Your task to perform on an android device: Open Google Chrome and open the bookmarks view Image 0: 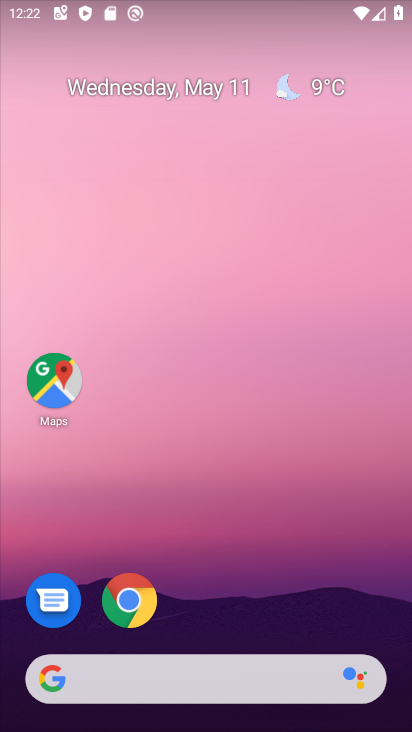
Step 0: click (136, 602)
Your task to perform on an android device: Open Google Chrome and open the bookmarks view Image 1: 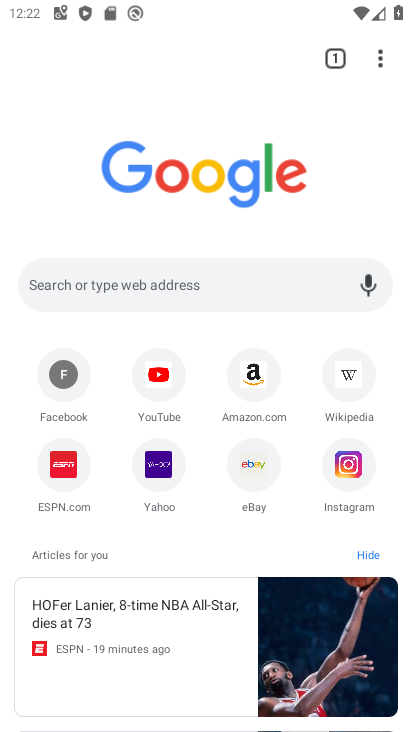
Step 1: click (380, 52)
Your task to perform on an android device: Open Google Chrome and open the bookmarks view Image 2: 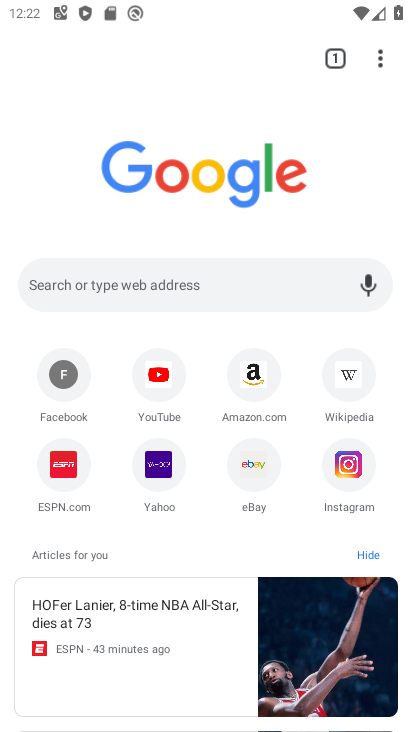
Step 2: click (373, 58)
Your task to perform on an android device: Open Google Chrome and open the bookmarks view Image 3: 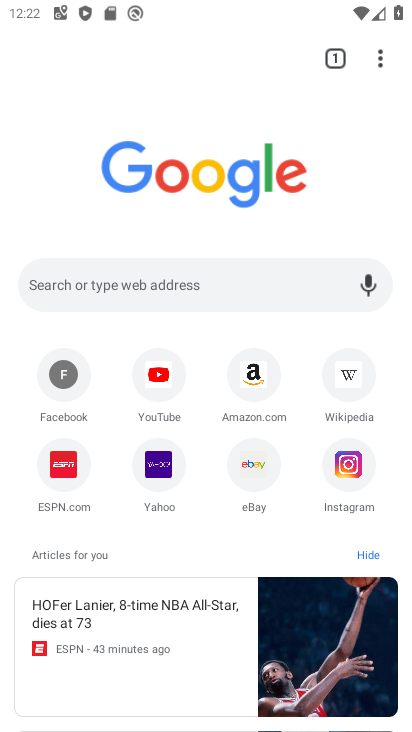
Step 3: click (378, 52)
Your task to perform on an android device: Open Google Chrome and open the bookmarks view Image 4: 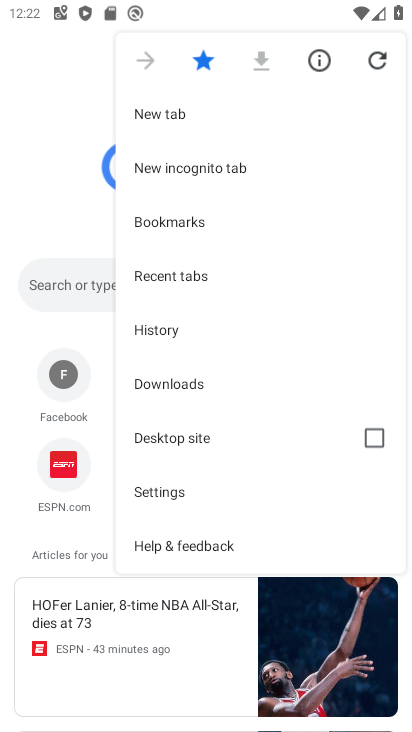
Step 4: click (198, 222)
Your task to perform on an android device: Open Google Chrome and open the bookmarks view Image 5: 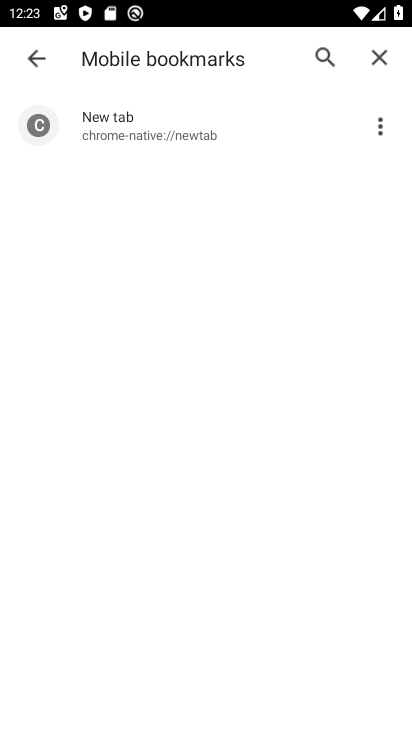
Step 5: press home button
Your task to perform on an android device: Open Google Chrome and open the bookmarks view Image 6: 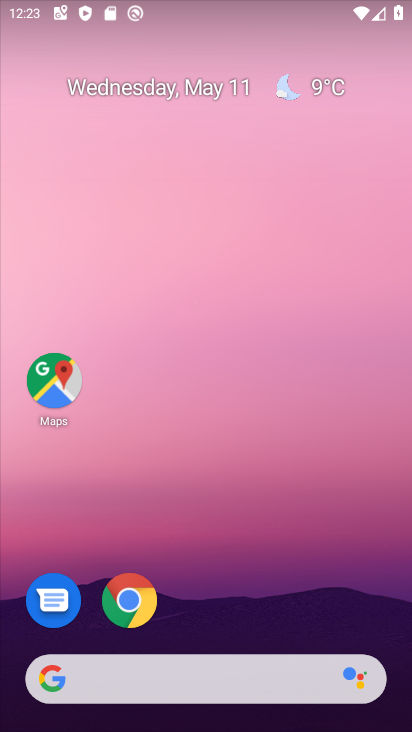
Step 6: click (132, 609)
Your task to perform on an android device: Open Google Chrome and open the bookmarks view Image 7: 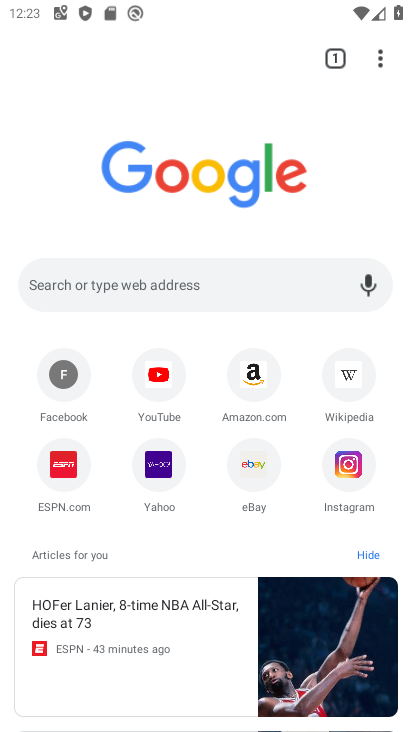
Step 7: click (379, 56)
Your task to perform on an android device: Open Google Chrome and open the bookmarks view Image 8: 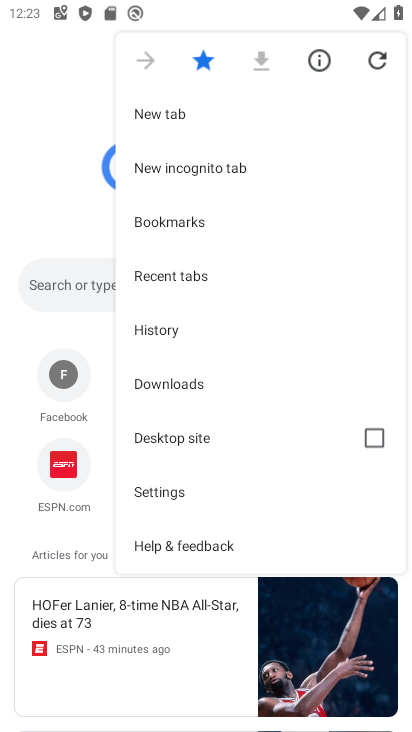
Step 8: click (201, 223)
Your task to perform on an android device: Open Google Chrome and open the bookmarks view Image 9: 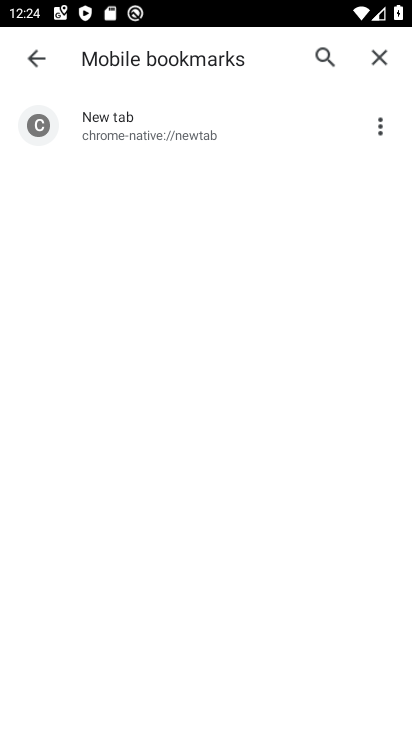
Step 9: task complete